Your task to perform on an android device: check data usage Image 0: 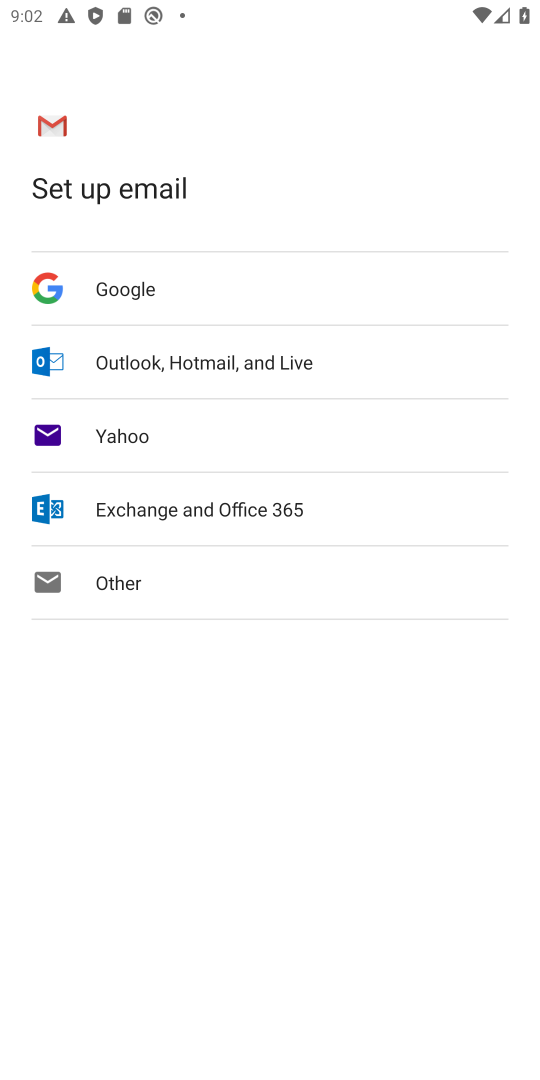
Step 0: press home button
Your task to perform on an android device: check data usage Image 1: 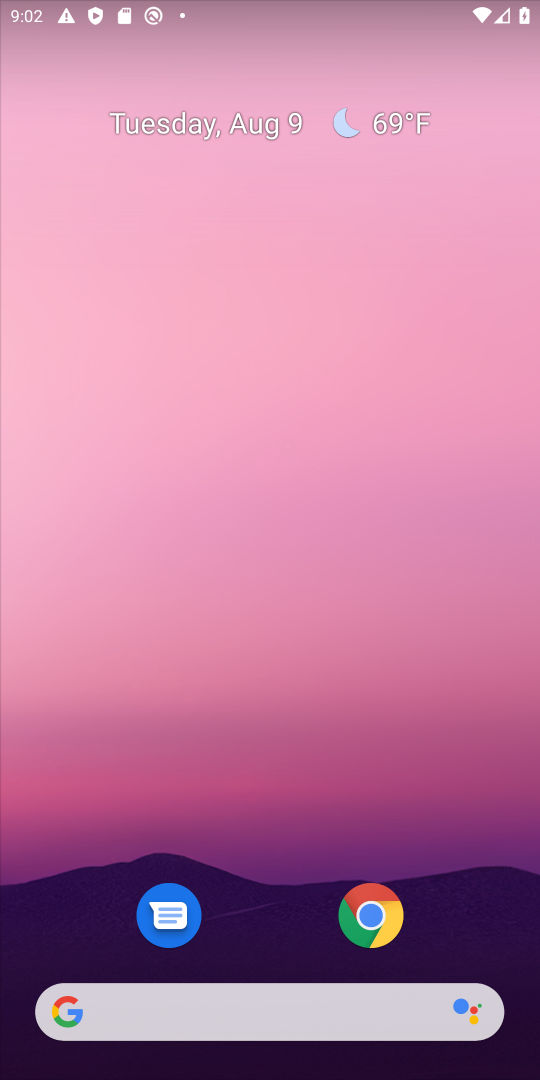
Step 1: drag from (248, 6) to (378, 642)
Your task to perform on an android device: check data usage Image 2: 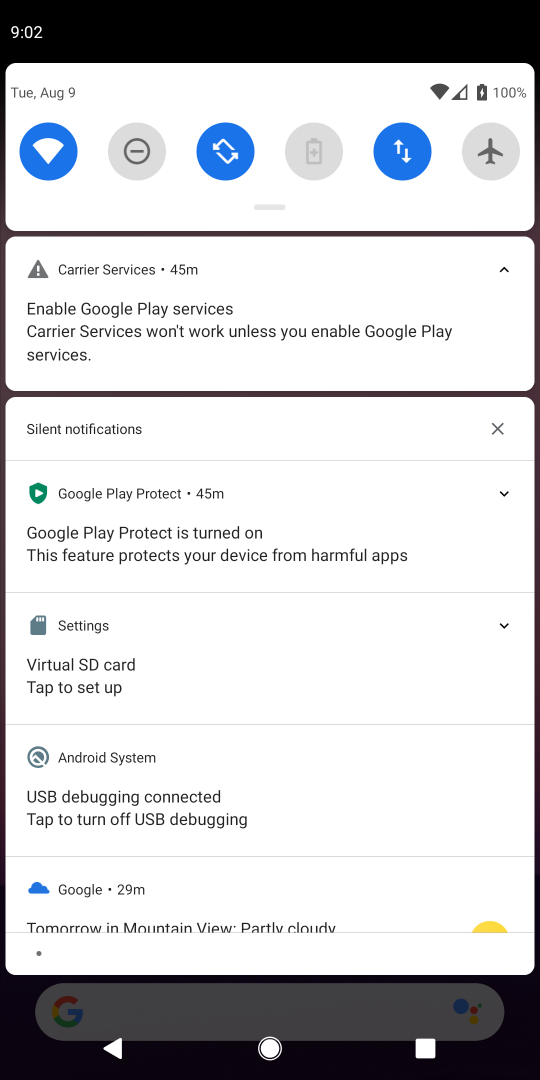
Step 2: click (399, 153)
Your task to perform on an android device: check data usage Image 3: 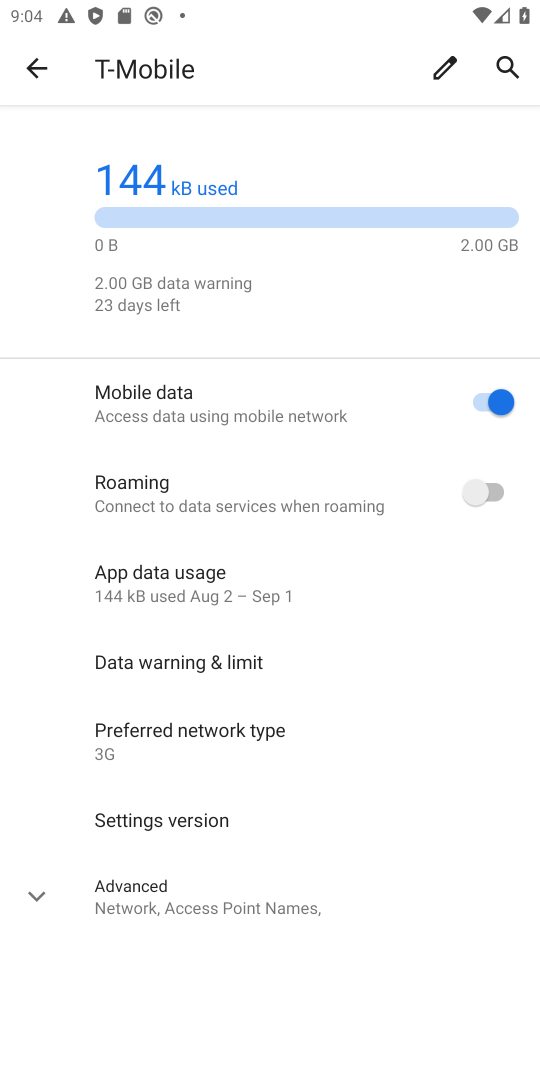
Step 3: task complete